Your task to perform on an android device: refresh tabs in the chrome app Image 0: 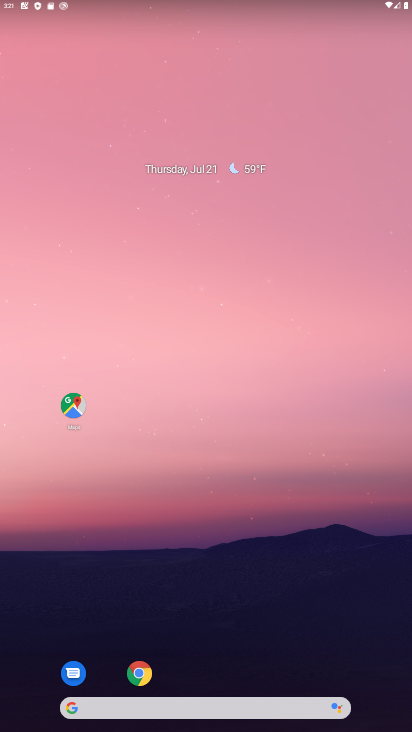
Step 0: click (138, 675)
Your task to perform on an android device: refresh tabs in the chrome app Image 1: 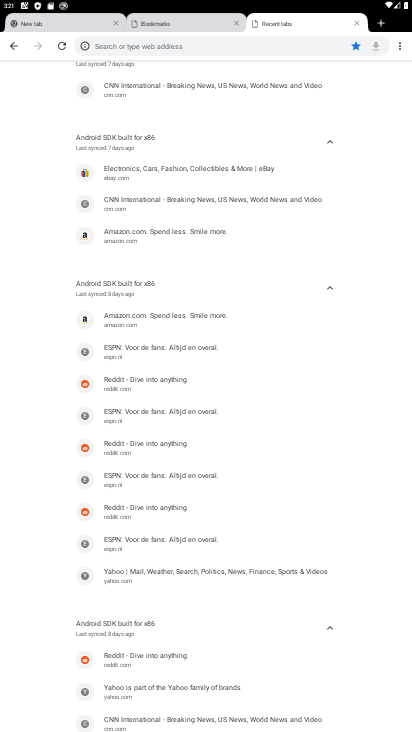
Step 1: click (401, 51)
Your task to perform on an android device: refresh tabs in the chrome app Image 2: 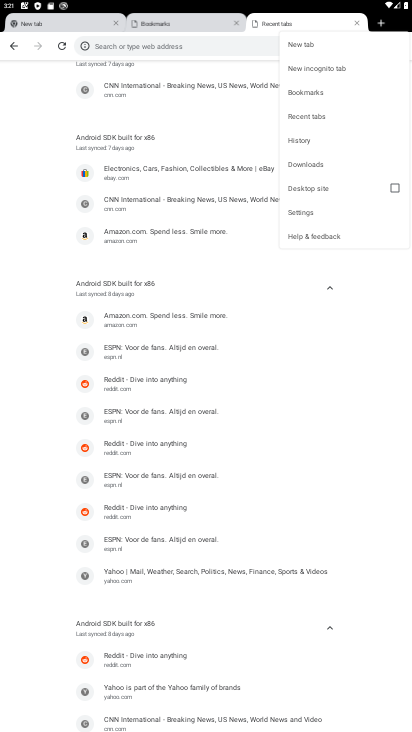
Step 2: click (60, 45)
Your task to perform on an android device: refresh tabs in the chrome app Image 3: 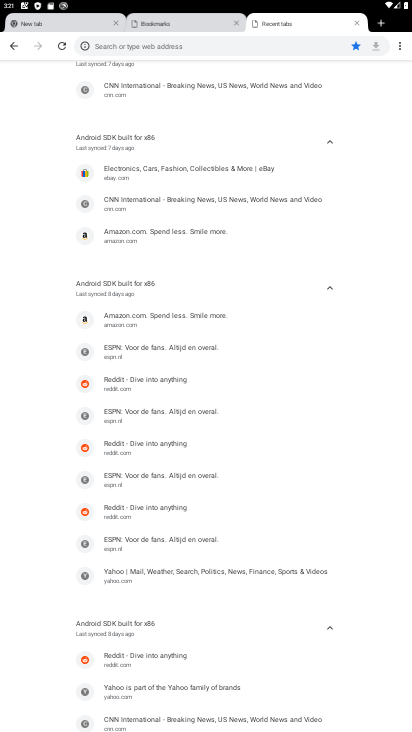
Step 3: click (63, 45)
Your task to perform on an android device: refresh tabs in the chrome app Image 4: 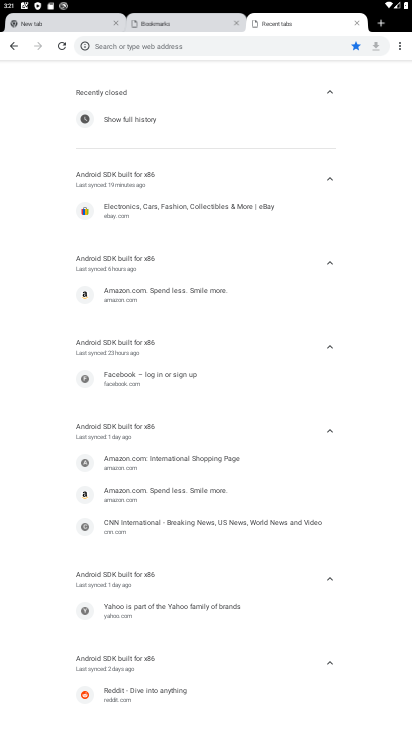
Step 4: task complete